Your task to perform on an android device: allow cookies in the chrome app Image 0: 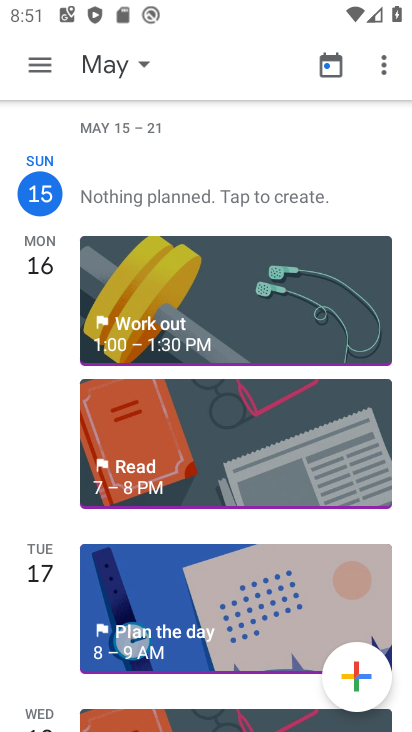
Step 0: press home button
Your task to perform on an android device: allow cookies in the chrome app Image 1: 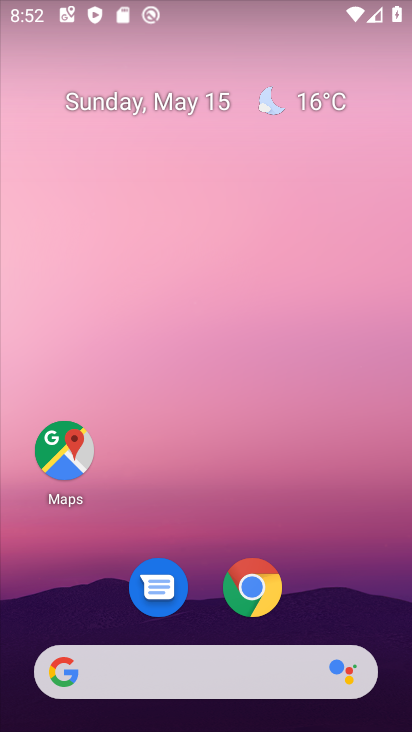
Step 1: click (239, 576)
Your task to perform on an android device: allow cookies in the chrome app Image 2: 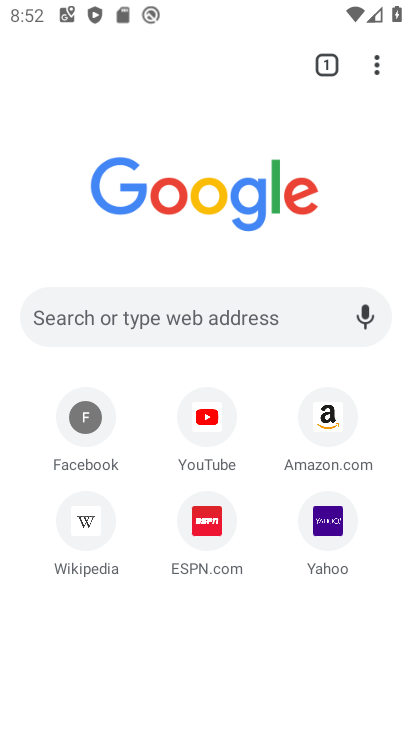
Step 2: click (384, 62)
Your task to perform on an android device: allow cookies in the chrome app Image 3: 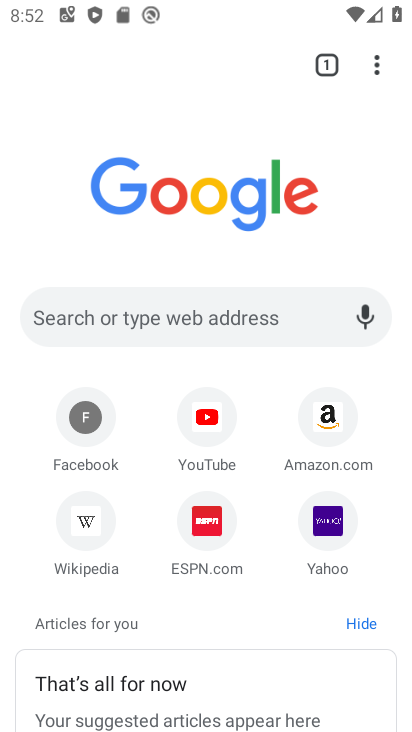
Step 3: drag from (381, 67) to (217, 549)
Your task to perform on an android device: allow cookies in the chrome app Image 4: 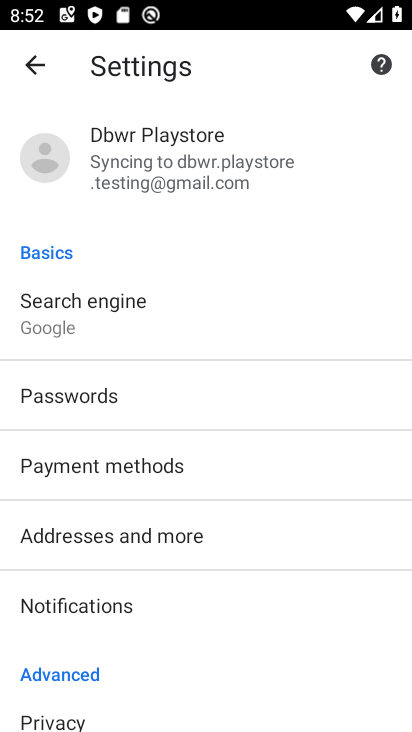
Step 4: drag from (262, 376) to (349, 102)
Your task to perform on an android device: allow cookies in the chrome app Image 5: 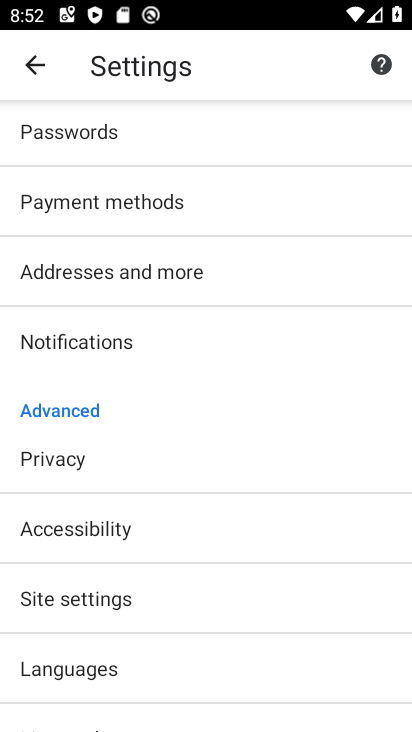
Step 5: click (151, 598)
Your task to perform on an android device: allow cookies in the chrome app Image 6: 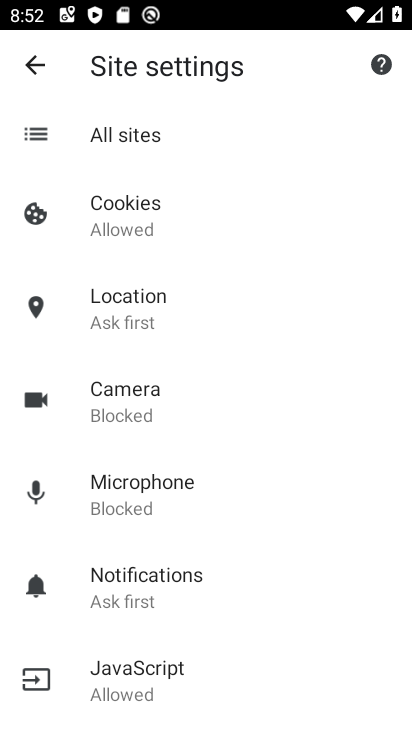
Step 6: click (164, 216)
Your task to perform on an android device: allow cookies in the chrome app Image 7: 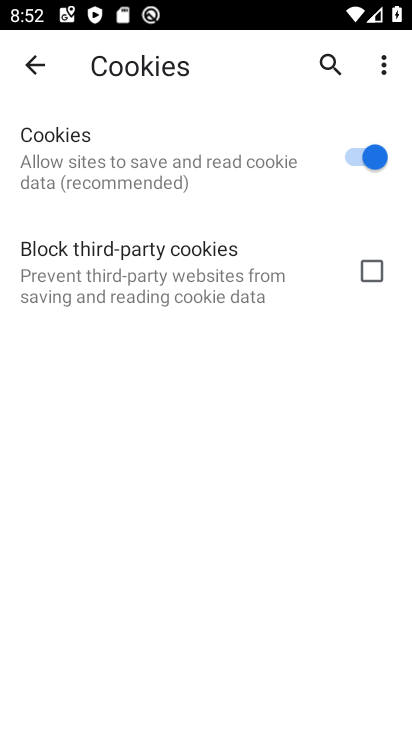
Step 7: task complete